Your task to perform on an android device: Open Maps and search for coffee Image 0: 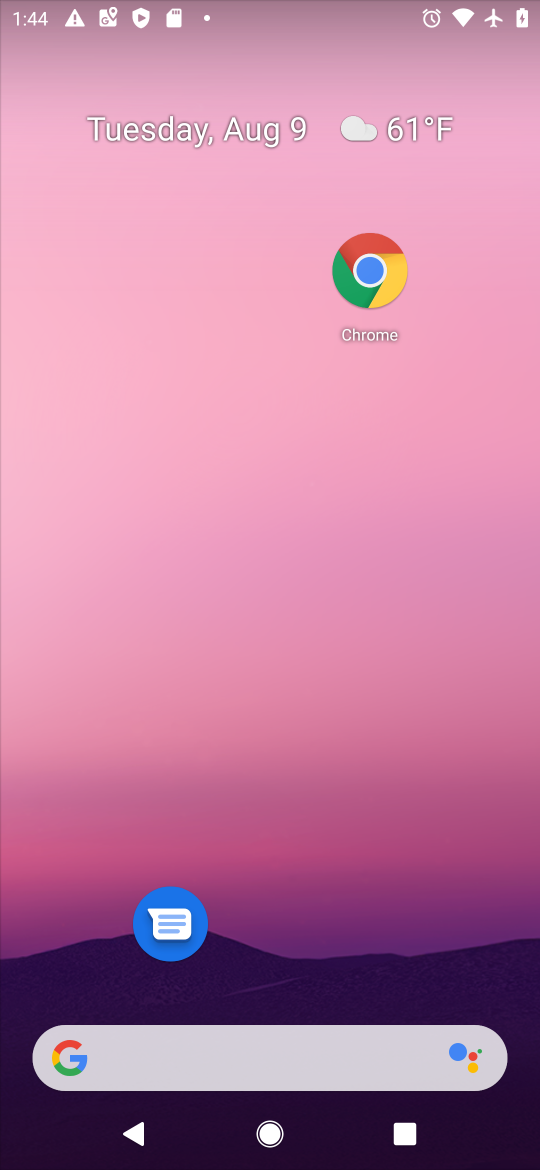
Step 0: drag from (337, 1007) to (303, 439)
Your task to perform on an android device: Open Maps and search for coffee Image 1: 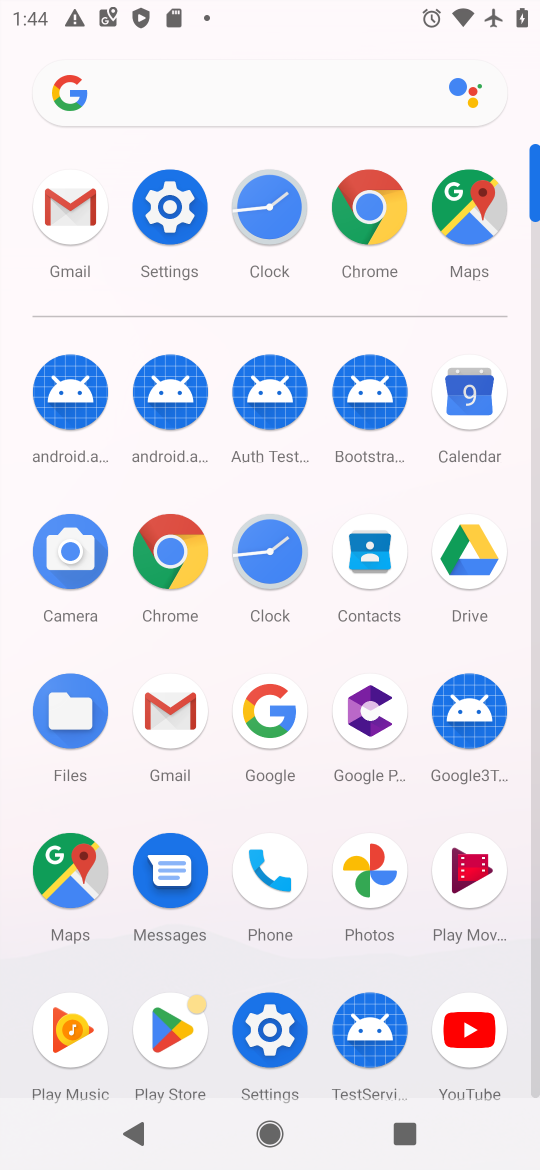
Step 1: click (71, 926)
Your task to perform on an android device: Open Maps and search for coffee Image 2: 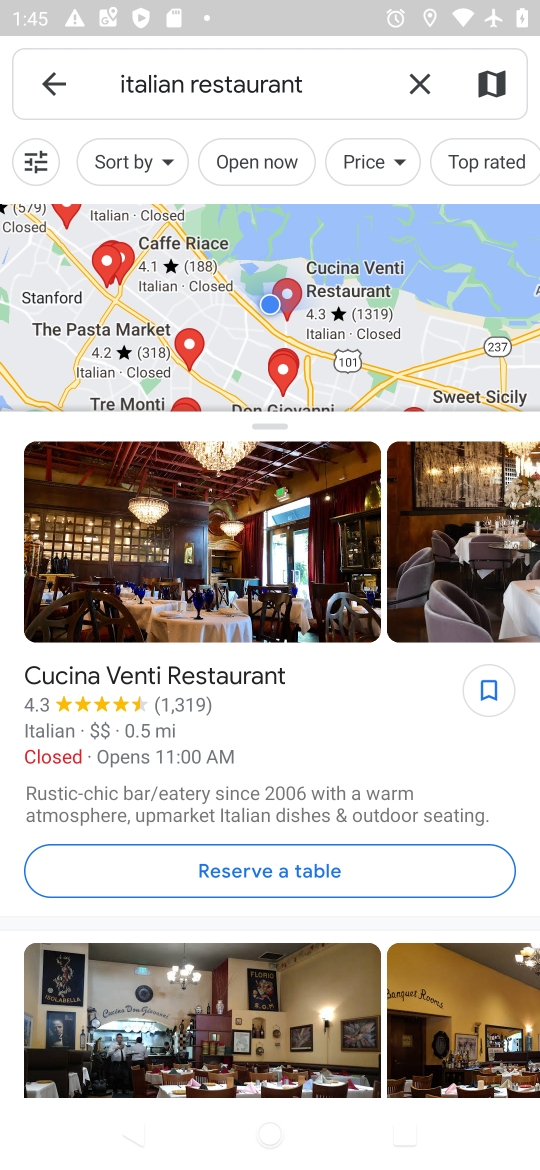
Step 2: click (409, 99)
Your task to perform on an android device: Open Maps and search for coffee Image 3: 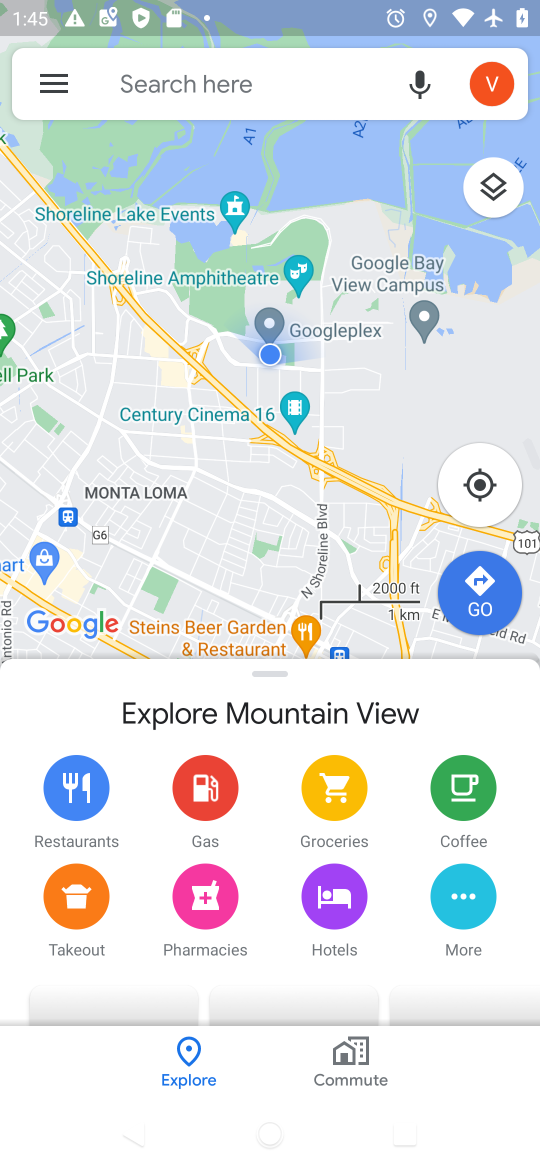
Step 3: click (214, 91)
Your task to perform on an android device: Open Maps and search for coffee Image 4: 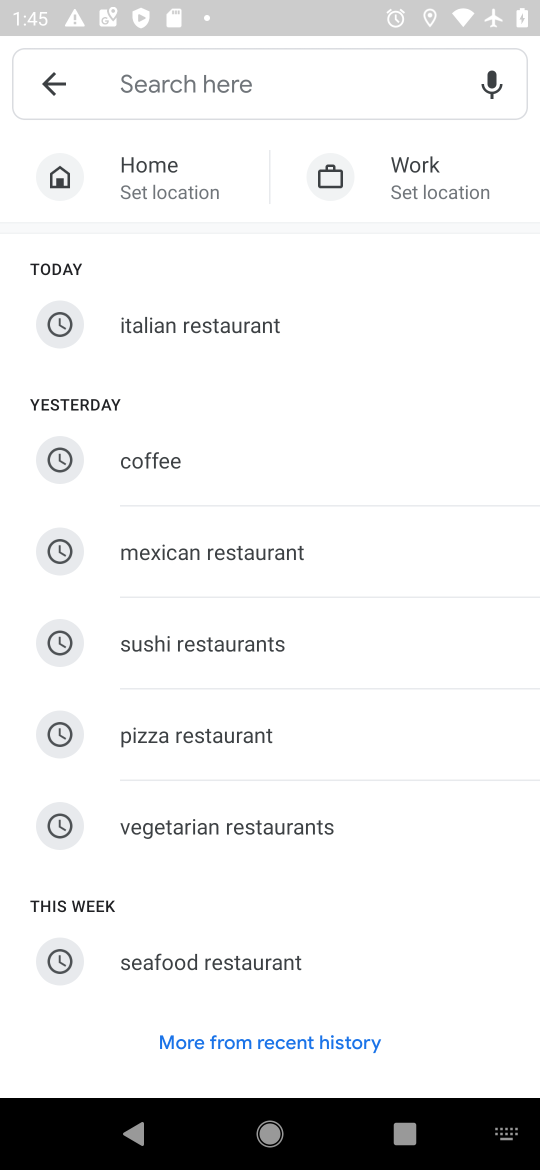
Step 4: type "coffee"
Your task to perform on an android device: Open Maps and search for coffee Image 5: 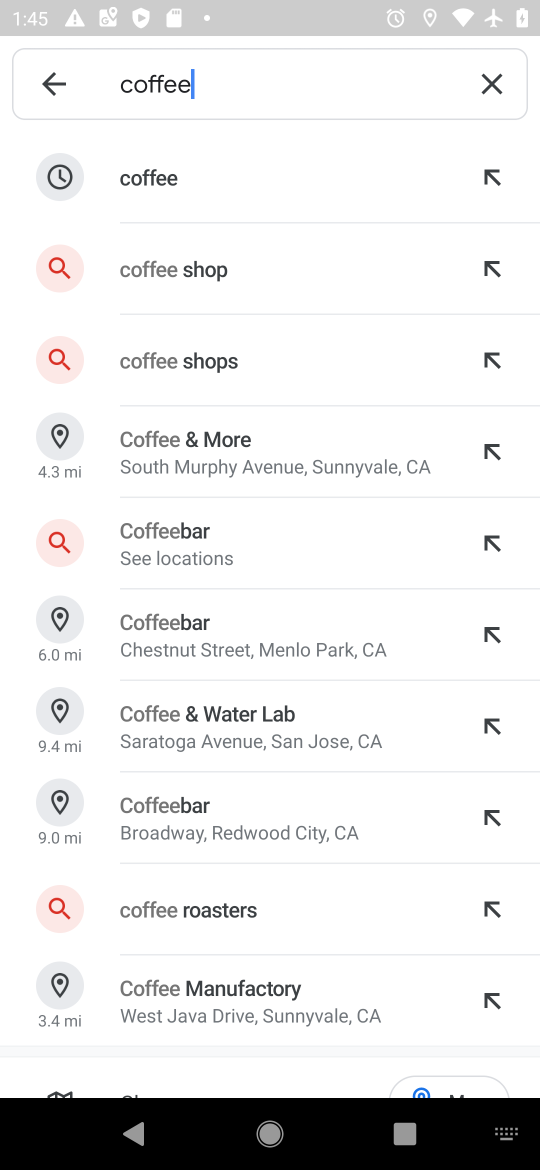
Step 5: click (217, 184)
Your task to perform on an android device: Open Maps and search for coffee Image 6: 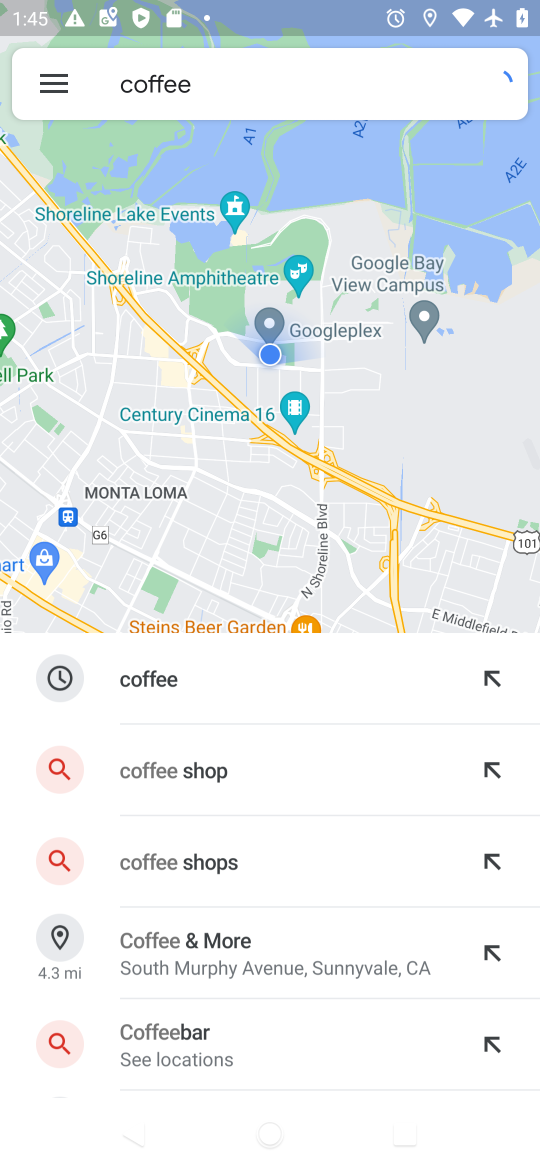
Step 6: task complete